Your task to perform on an android device: allow cookies in the chrome app Image 0: 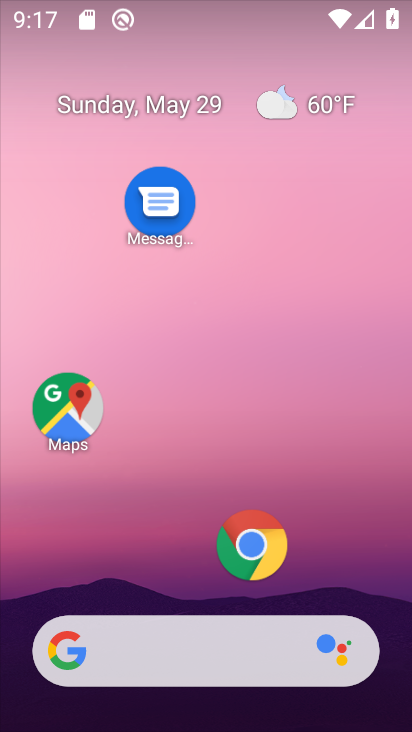
Step 0: click (247, 552)
Your task to perform on an android device: allow cookies in the chrome app Image 1: 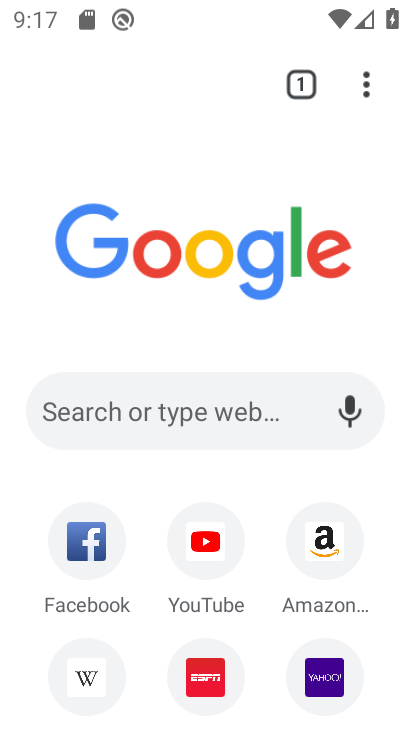
Step 1: click (369, 86)
Your task to perform on an android device: allow cookies in the chrome app Image 2: 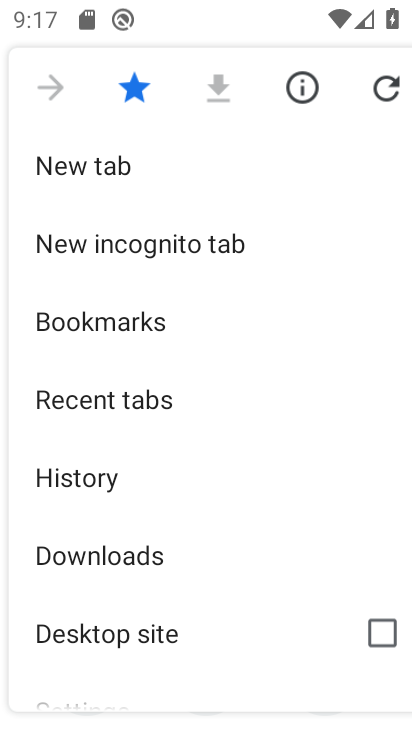
Step 2: drag from (122, 501) to (144, 147)
Your task to perform on an android device: allow cookies in the chrome app Image 3: 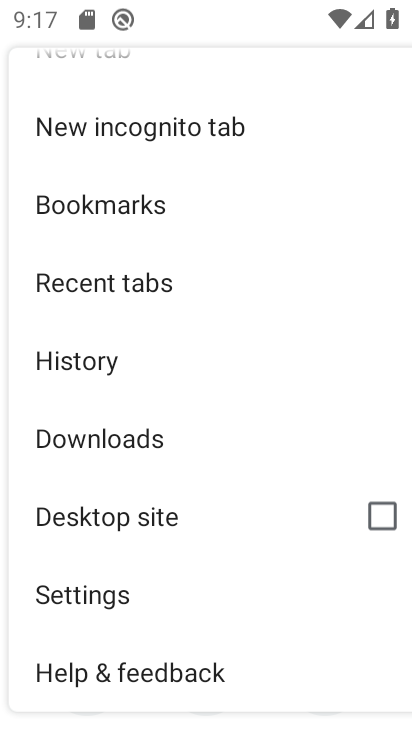
Step 3: click (79, 593)
Your task to perform on an android device: allow cookies in the chrome app Image 4: 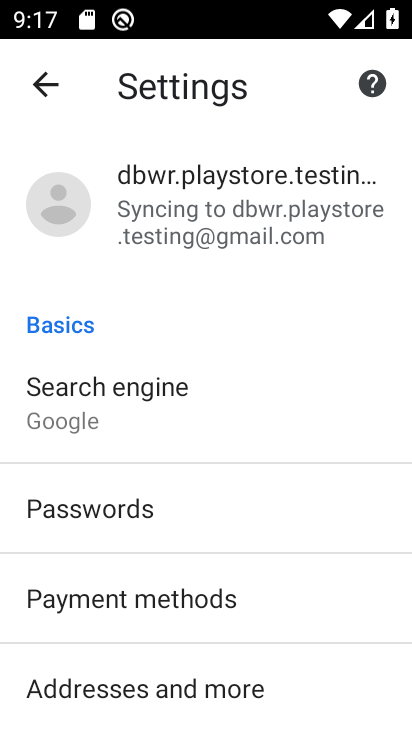
Step 4: drag from (179, 673) to (236, 312)
Your task to perform on an android device: allow cookies in the chrome app Image 5: 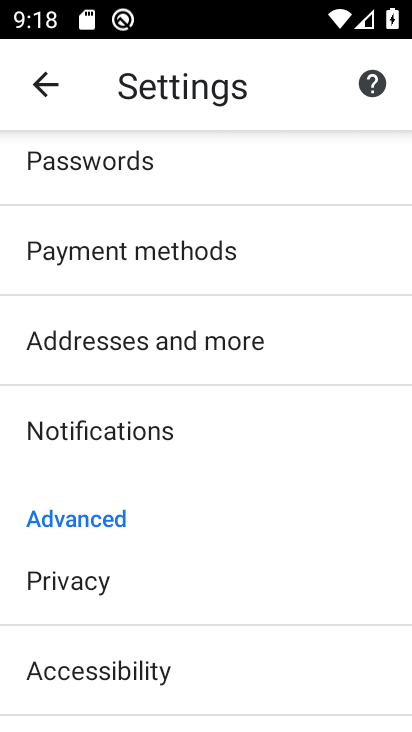
Step 5: drag from (107, 712) to (170, 362)
Your task to perform on an android device: allow cookies in the chrome app Image 6: 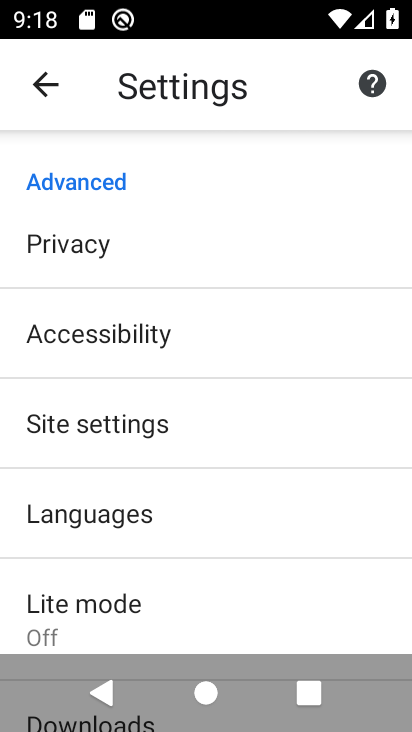
Step 6: click (98, 413)
Your task to perform on an android device: allow cookies in the chrome app Image 7: 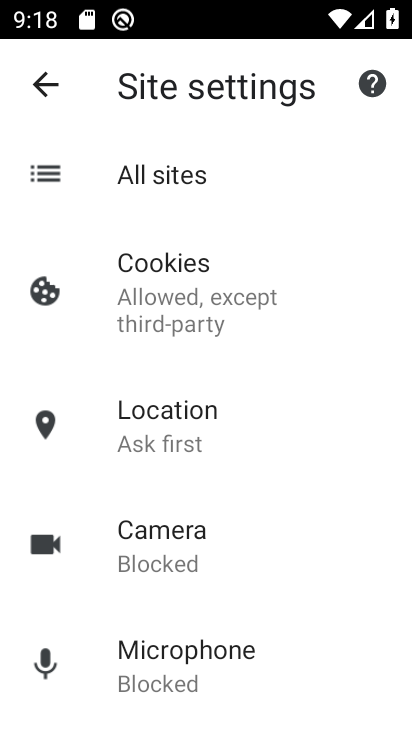
Step 7: click (182, 301)
Your task to perform on an android device: allow cookies in the chrome app Image 8: 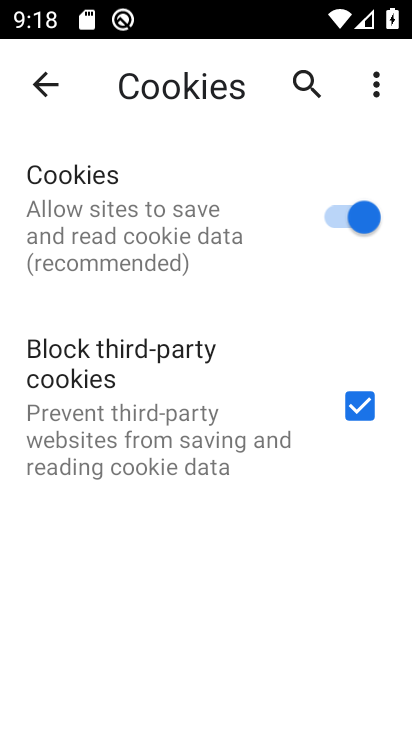
Step 8: task complete